Your task to perform on an android device: turn off data saver in the chrome app Image 0: 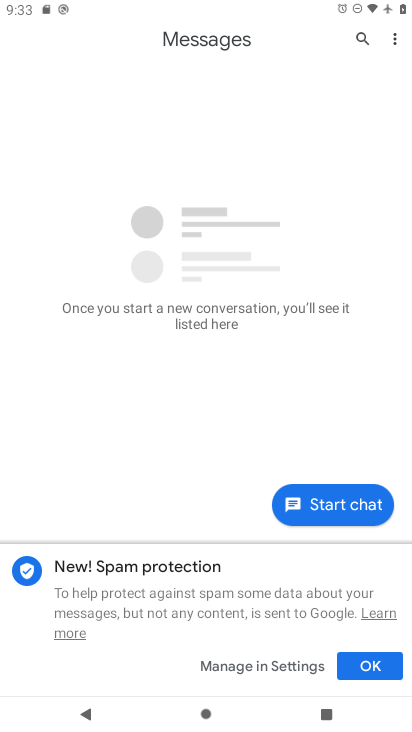
Step 0: press home button
Your task to perform on an android device: turn off data saver in the chrome app Image 1: 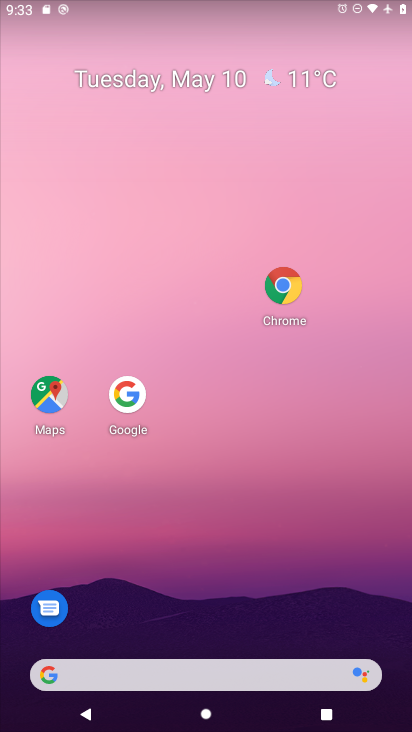
Step 1: drag from (164, 669) to (243, 95)
Your task to perform on an android device: turn off data saver in the chrome app Image 2: 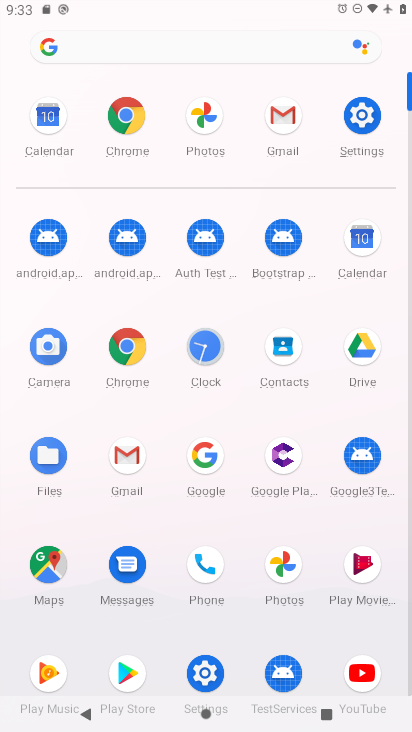
Step 2: click (129, 123)
Your task to perform on an android device: turn off data saver in the chrome app Image 3: 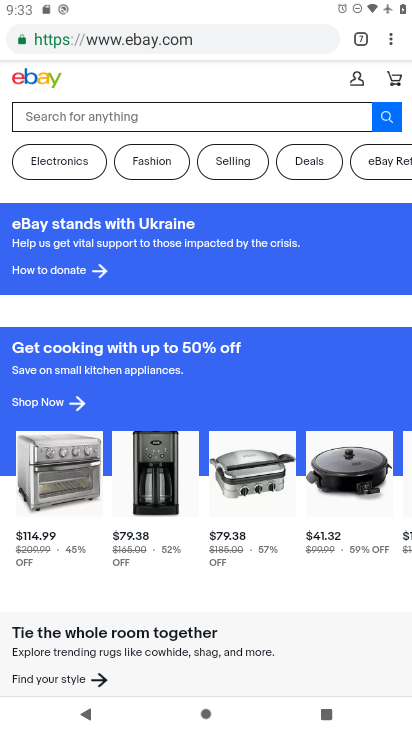
Step 3: drag from (389, 40) to (282, 469)
Your task to perform on an android device: turn off data saver in the chrome app Image 4: 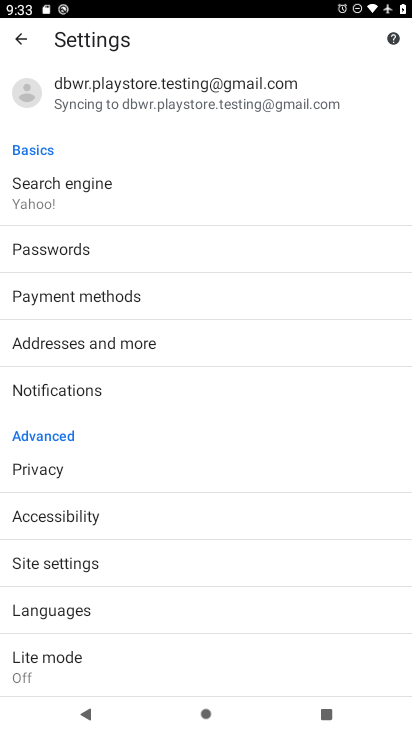
Step 4: click (103, 669)
Your task to perform on an android device: turn off data saver in the chrome app Image 5: 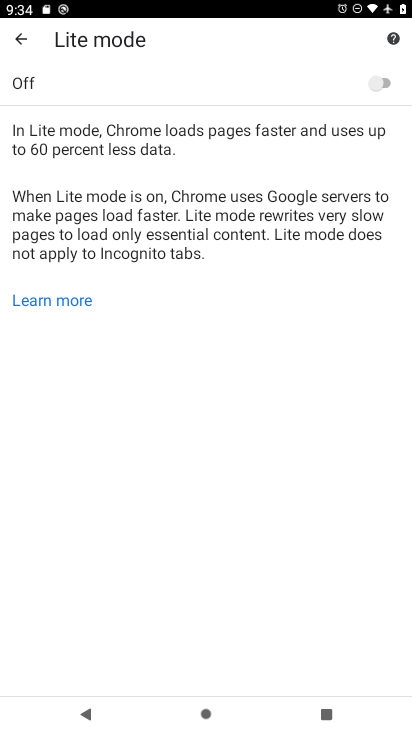
Step 5: task complete